Your task to perform on an android device: What is the recent news? Image 0: 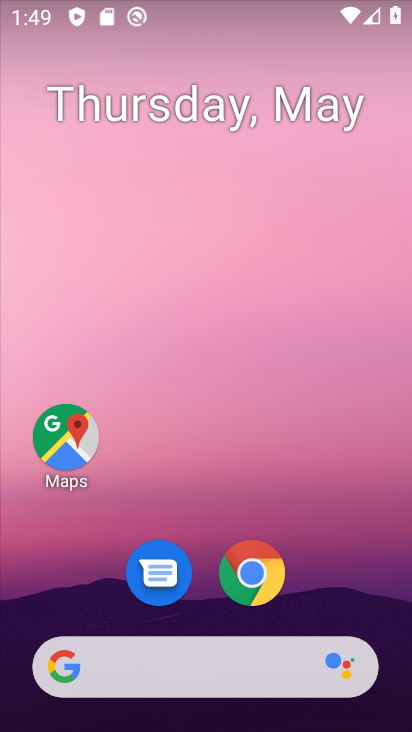
Step 0: drag from (0, 351) to (360, 290)
Your task to perform on an android device: What is the recent news? Image 1: 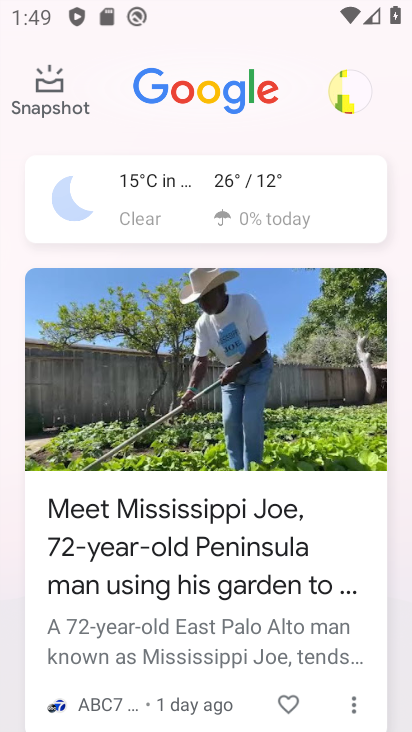
Step 1: task complete